Your task to perform on an android device: Do I have any events tomorrow? Image 0: 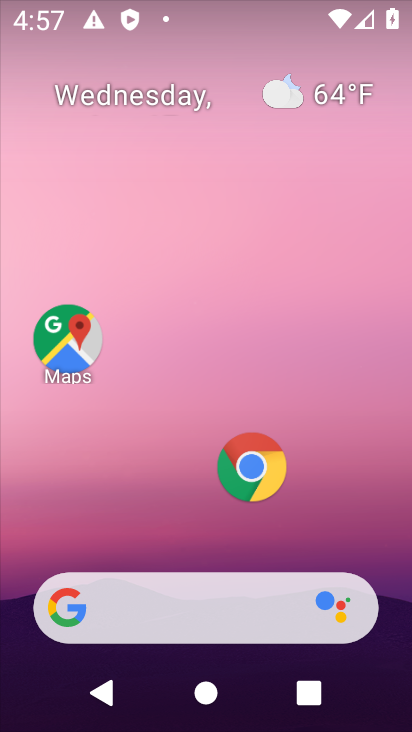
Step 0: click (170, 511)
Your task to perform on an android device: Do I have any events tomorrow? Image 1: 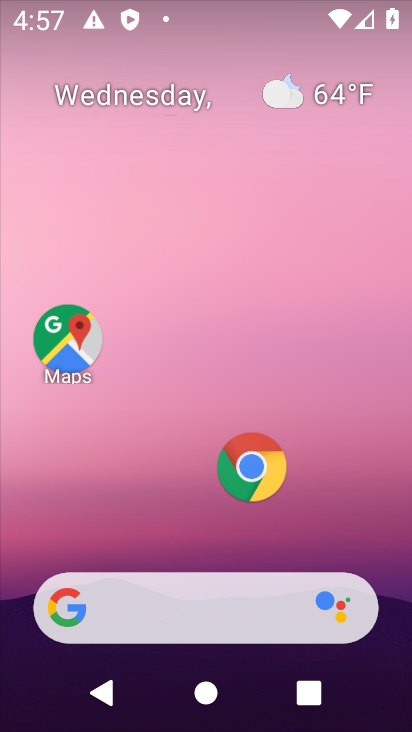
Step 1: drag from (152, 514) to (191, 139)
Your task to perform on an android device: Do I have any events tomorrow? Image 2: 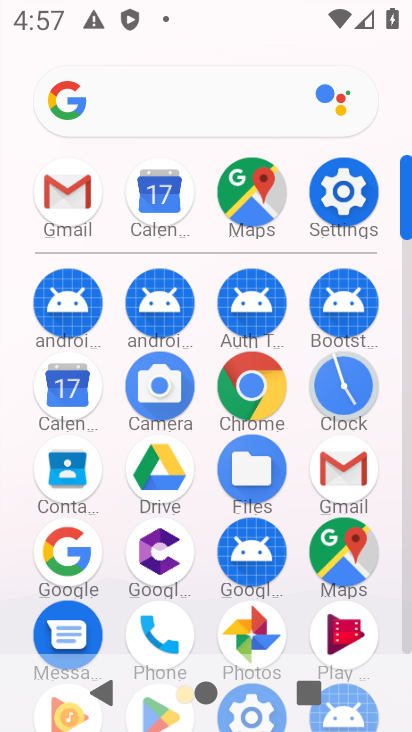
Step 2: click (89, 400)
Your task to perform on an android device: Do I have any events tomorrow? Image 3: 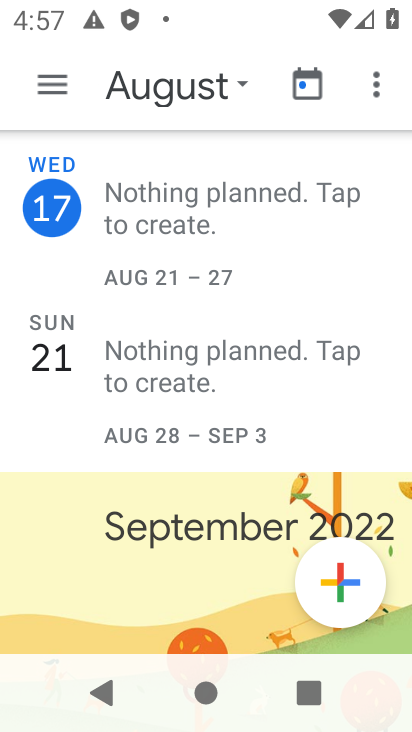
Step 3: task complete